Your task to perform on an android device: empty trash in the gmail app Image 0: 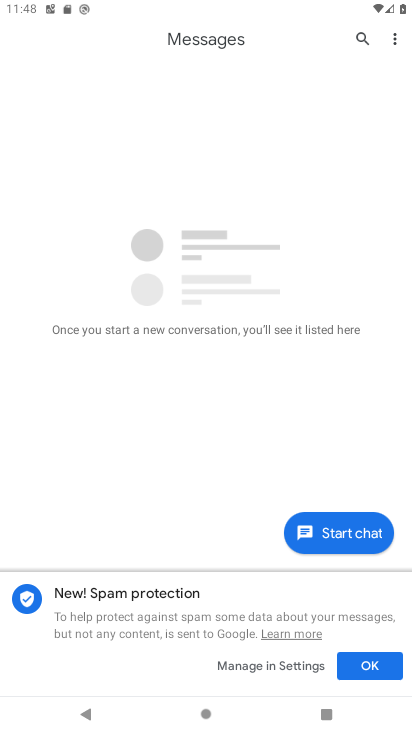
Step 0: press home button
Your task to perform on an android device: empty trash in the gmail app Image 1: 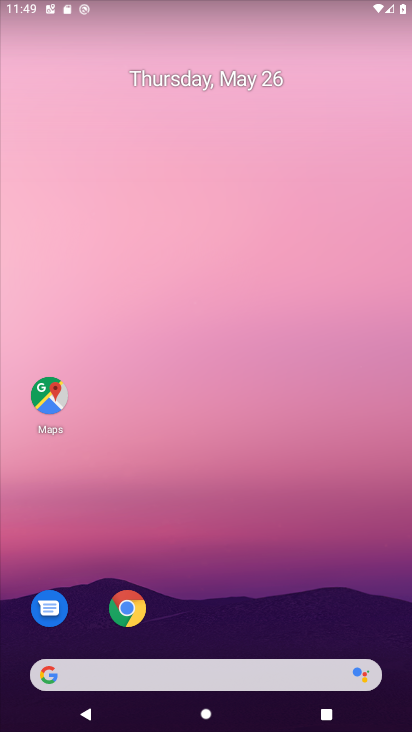
Step 1: drag from (396, 678) to (355, 168)
Your task to perform on an android device: empty trash in the gmail app Image 2: 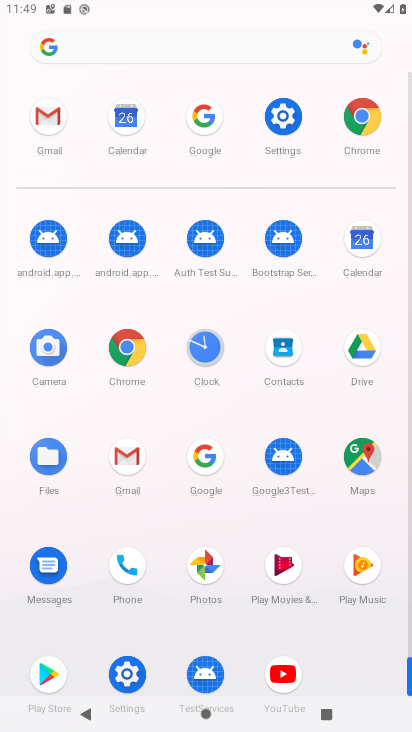
Step 2: click (113, 460)
Your task to perform on an android device: empty trash in the gmail app Image 3: 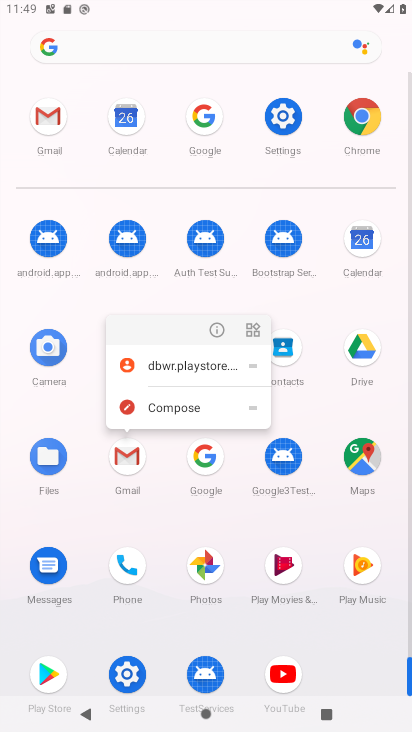
Step 3: click (124, 456)
Your task to perform on an android device: empty trash in the gmail app Image 4: 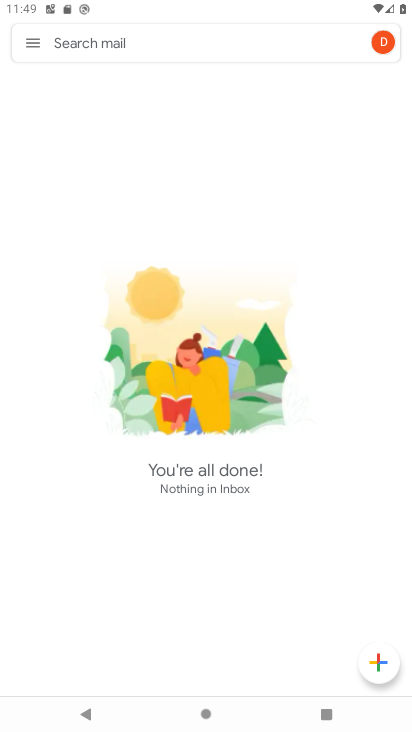
Step 4: click (31, 37)
Your task to perform on an android device: empty trash in the gmail app Image 5: 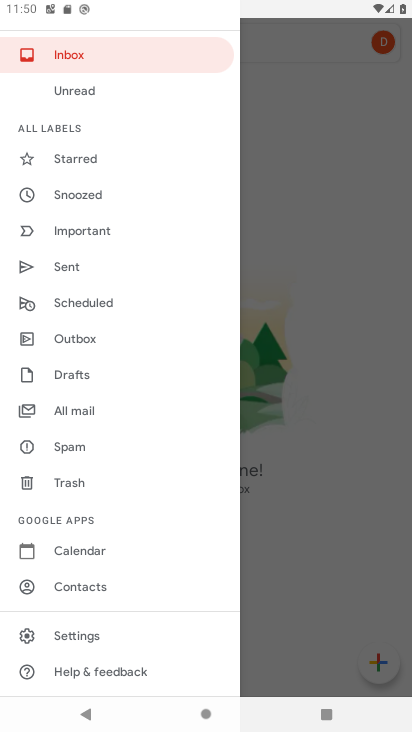
Step 5: click (69, 483)
Your task to perform on an android device: empty trash in the gmail app Image 6: 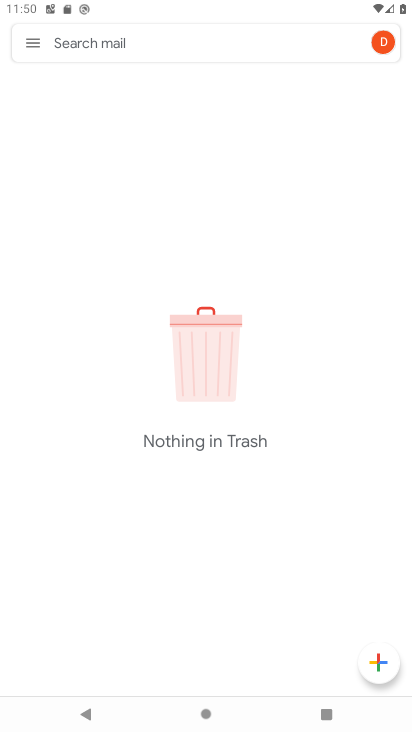
Step 6: task complete